Your task to perform on an android device: Open Google Maps Image 0: 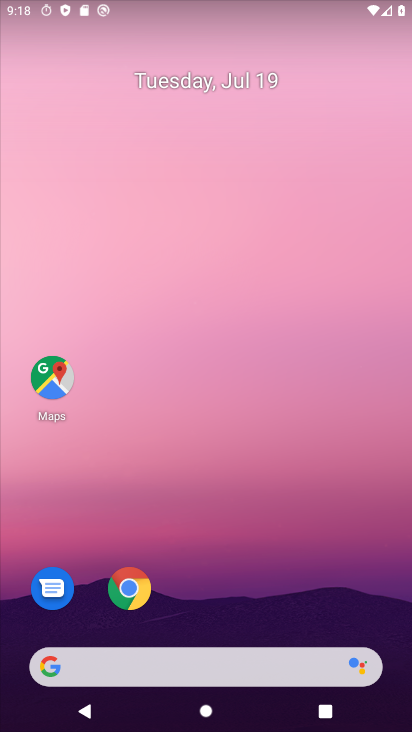
Step 0: press home button
Your task to perform on an android device: Open Google Maps Image 1: 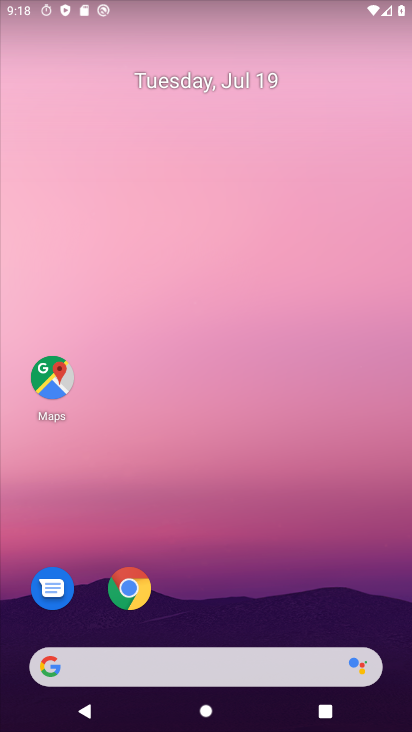
Step 1: click (48, 375)
Your task to perform on an android device: Open Google Maps Image 2: 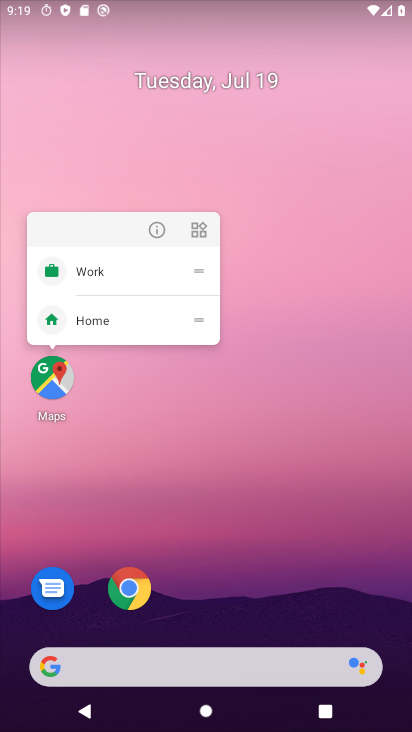
Step 2: click (48, 377)
Your task to perform on an android device: Open Google Maps Image 3: 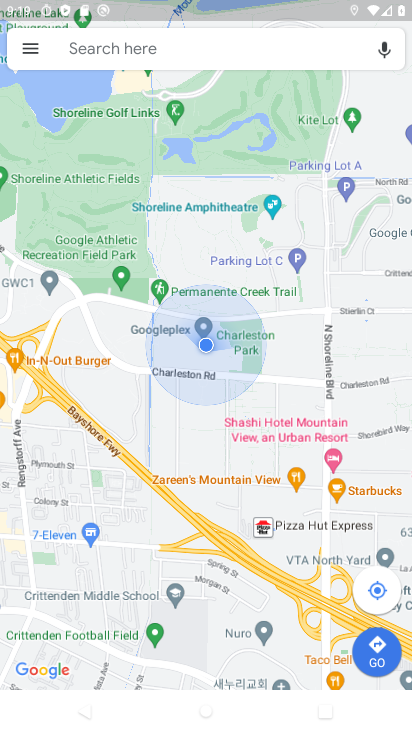
Step 3: task complete